Your task to perform on an android device: Open the Play Movies app and select the watchlist tab. Image 0: 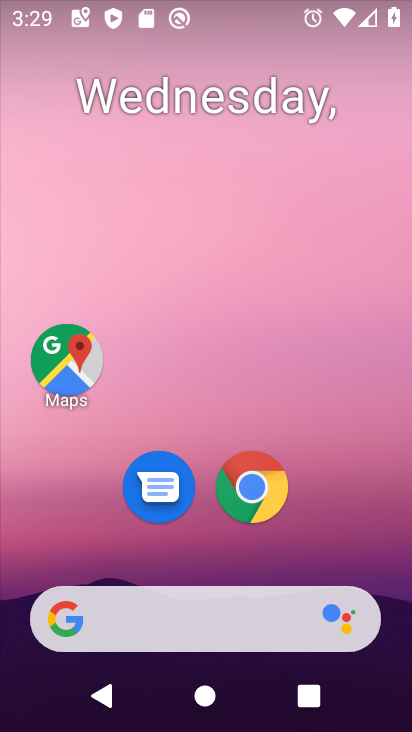
Step 0: drag from (386, 549) to (376, 178)
Your task to perform on an android device: Open the Play Movies app and select the watchlist tab. Image 1: 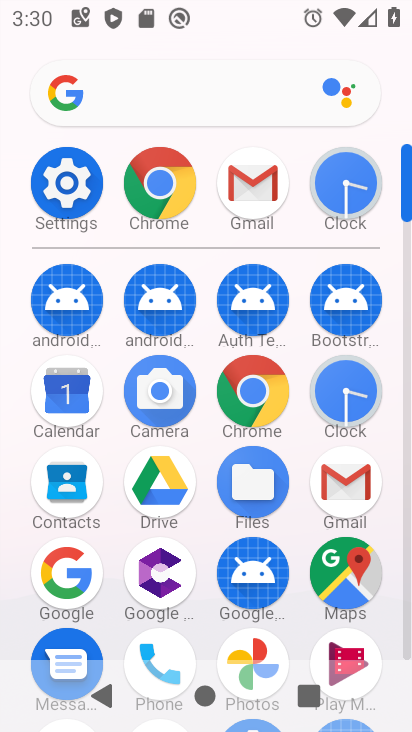
Step 1: drag from (291, 428) to (301, 263)
Your task to perform on an android device: Open the Play Movies app and select the watchlist tab. Image 2: 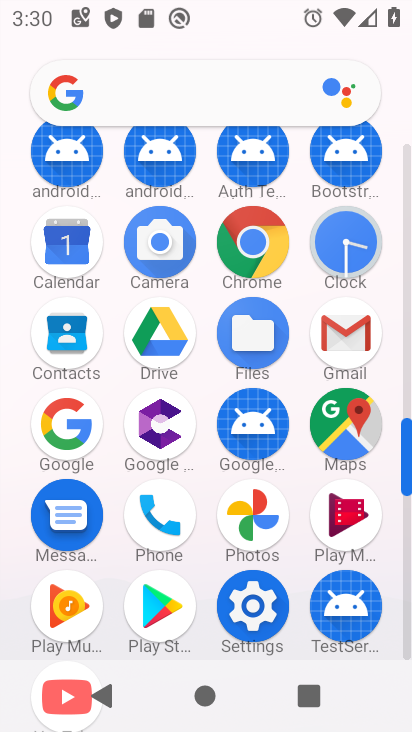
Step 2: click (354, 522)
Your task to perform on an android device: Open the Play Movies app and select the watchlist tab. Image 3: 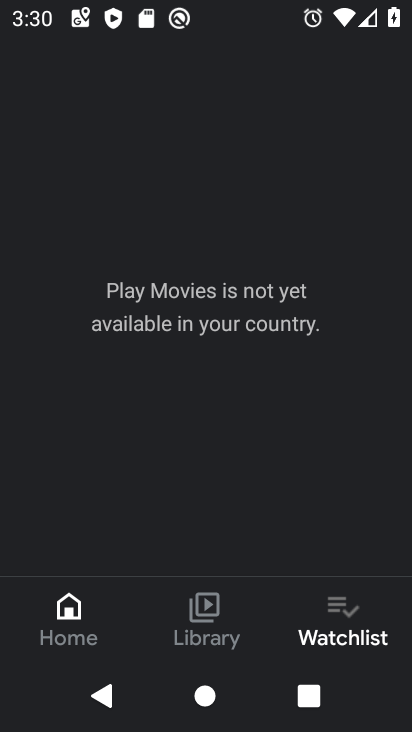
Step 3: task complete